Your task to perform on an android device: Open my contact list Image 0: 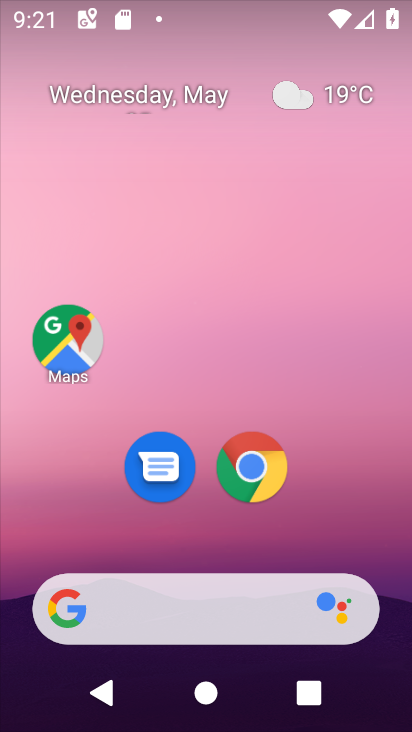
Step 0: drag from (354, 474) to (332, 156)
Your task to perform on an android device: Open my contact list Image 1: 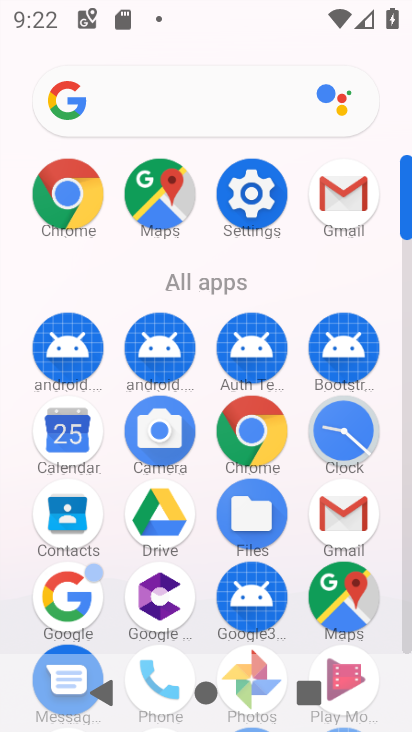
Step 1: click (55, 510)
Your task to perform on an android device: Open my contact list Image 2: 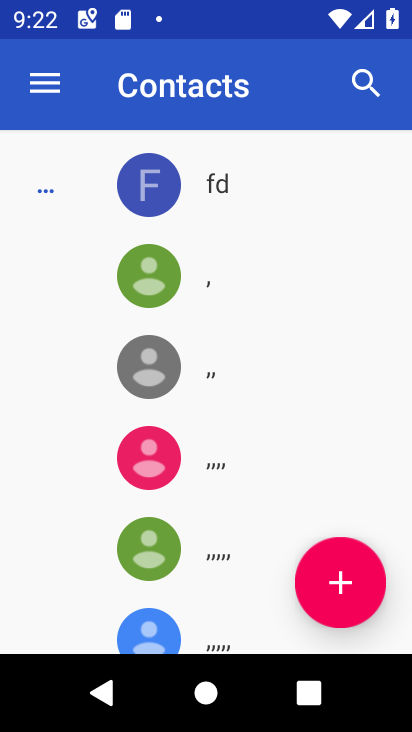
Step 2: task complete